Your task to perform on an android device: turn on sleep mode Image 0: 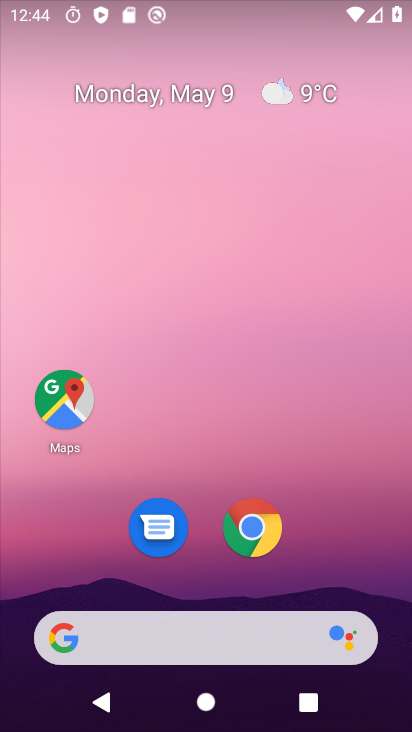
Step 0: drag from (203, 559) to (215, 51)
Your task to perform on an android device: turn on sleep mode Image 1: 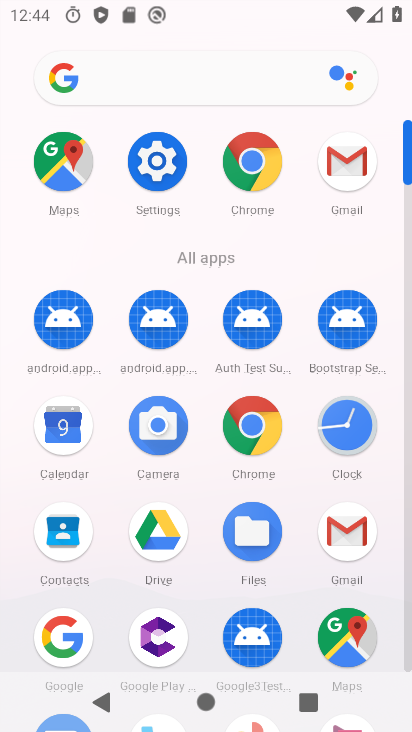
Step 1: click (151, 154)
Your task to perform on an android device: turn on sleep mode Image 2: 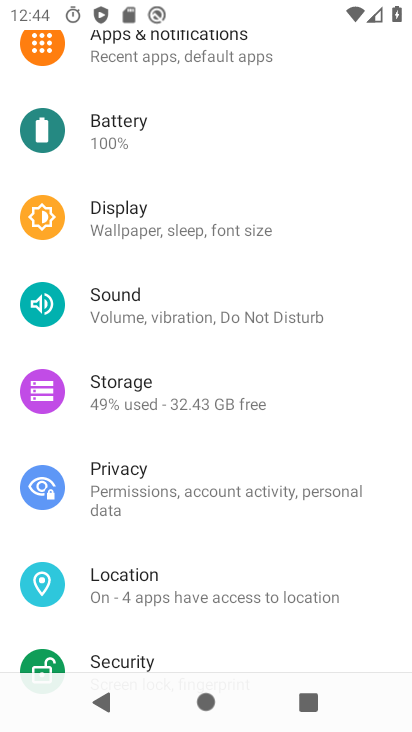
Step 2: drag from (152, 129) to (153, 644)
Your task to perform on an android device: turn on sleep mode Image 3: 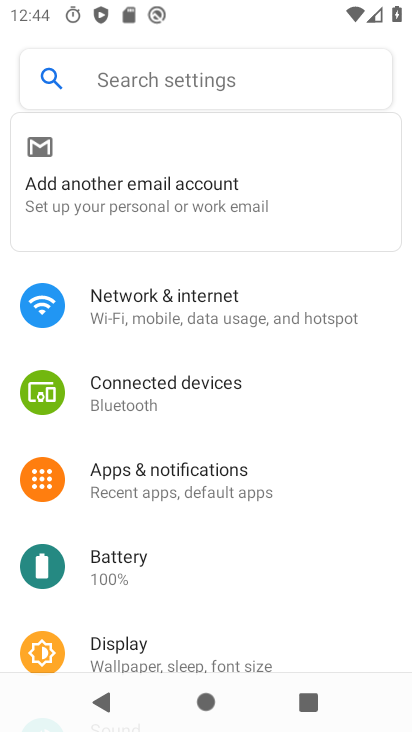
Step 3: click (112, 78)
Your task to perform on an android device: turn on sleep mode Image 4: 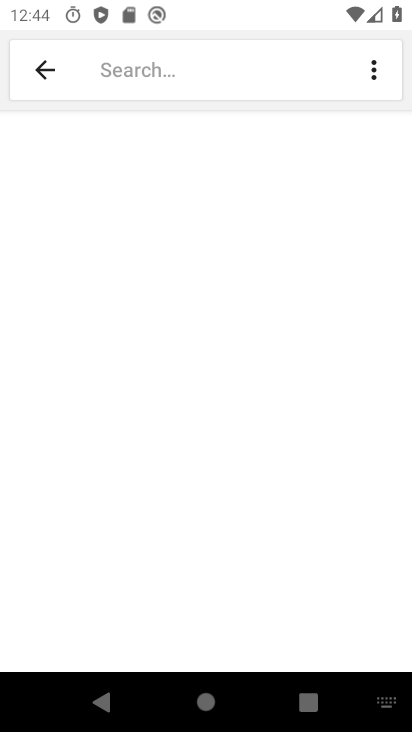
Step 4: type "sleep mode"
Your task to perform on an android device: turn on sleep mode Image 5: 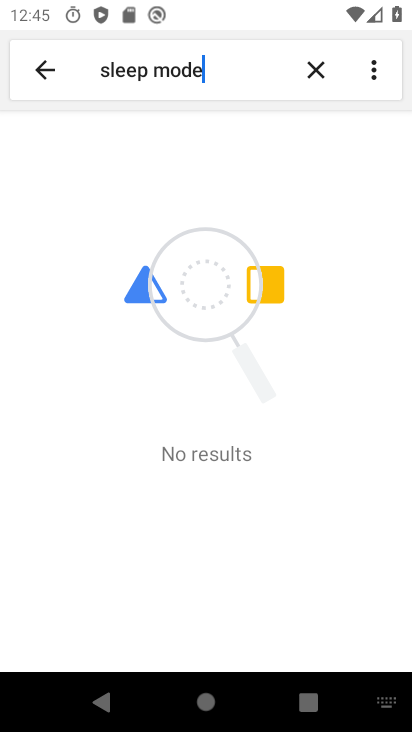
Step 5: task complete